Your task to perform on an android device: turn on wifi Image 0: 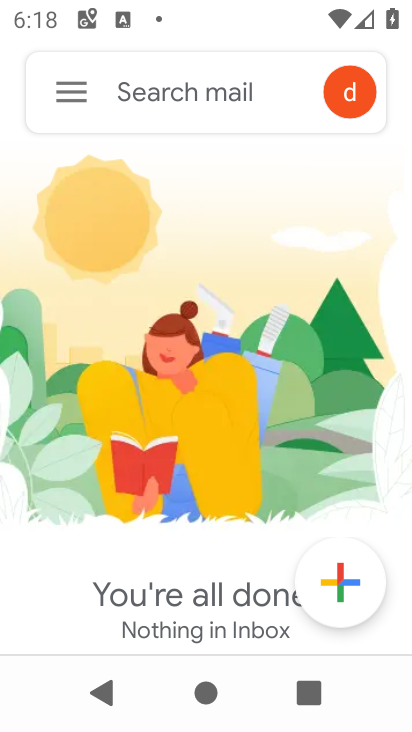
Step 0: press home button
Your task to perform on an android device: turn on wifi Image 1: 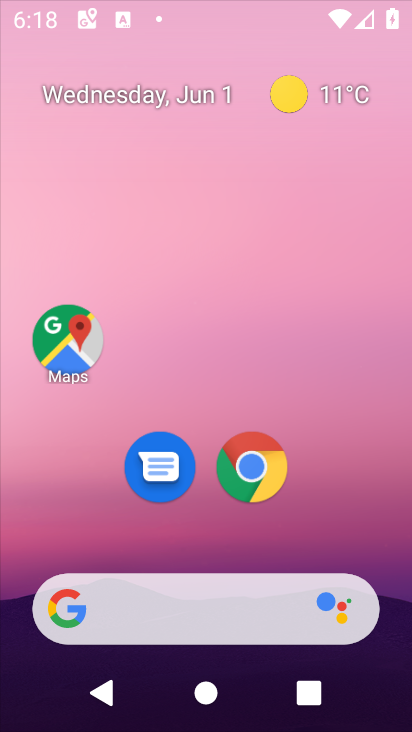
Step 1: drag from (273, 394) to (191, 4)
Your task to perform on an android device: turn on wifi Image 2: 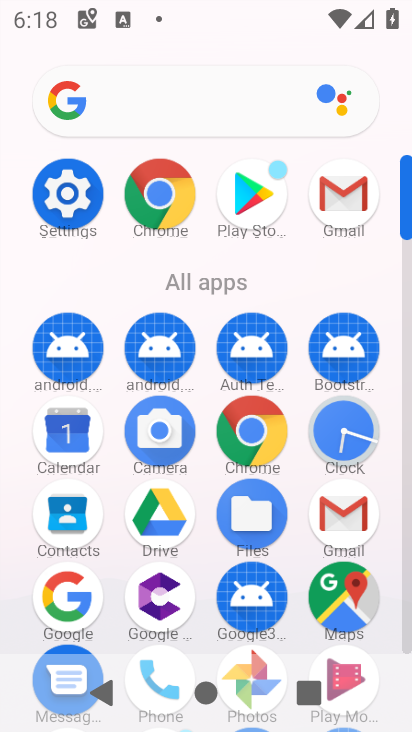
Step 2: click (75, 181)
Your task to perform on an android device: turn on wifi Image 3: 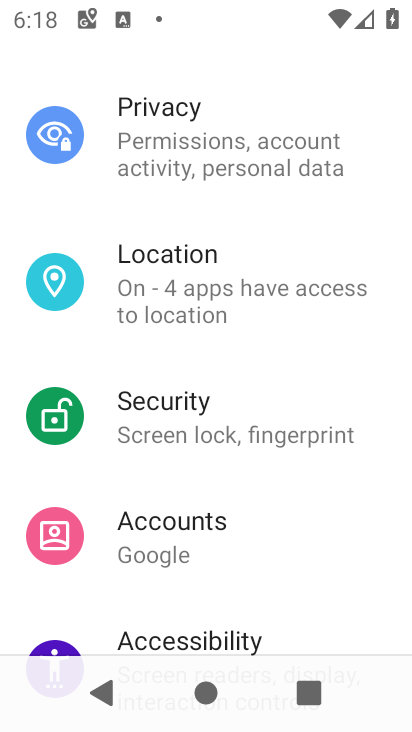
Step 3: drag from (248, 158) to (156, 687)
Your task to perform on an android device: turn on wifi Image 4: 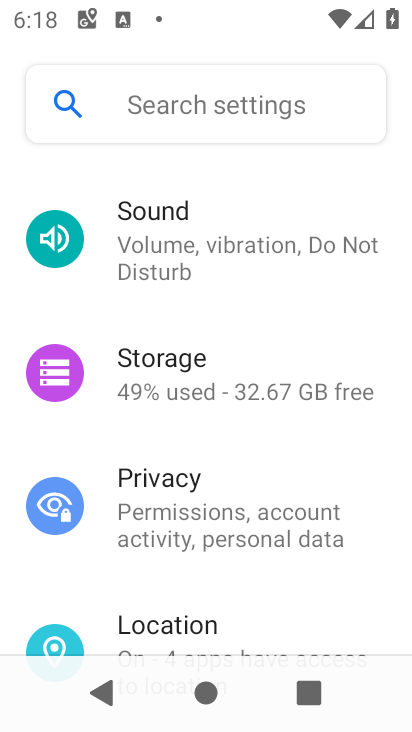
Step 4: drag from (247, 190) to (121, 675)
Your task to perform on an android device: turn on wifi Image 5: 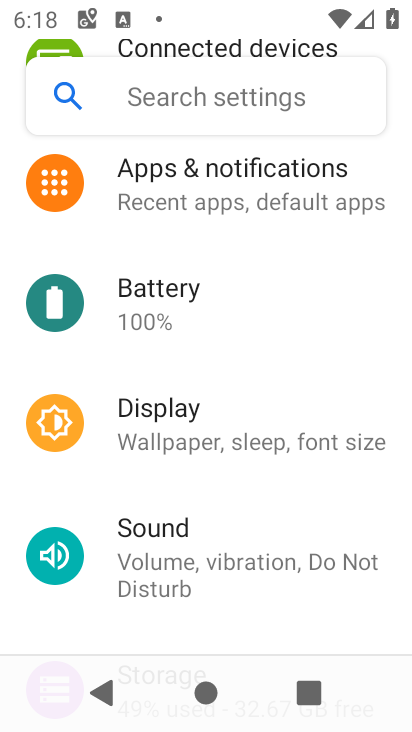
Step 5: drag from (272, 240) to (165, 688)
Your task to perform on an android device: turn on wifi Image 6: 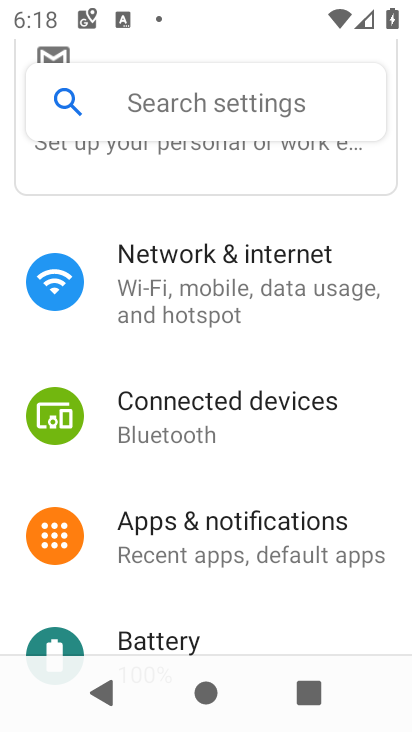
Step 6: click (223, 287)
Your task to perform on an android device: turn on wifi Image 7: 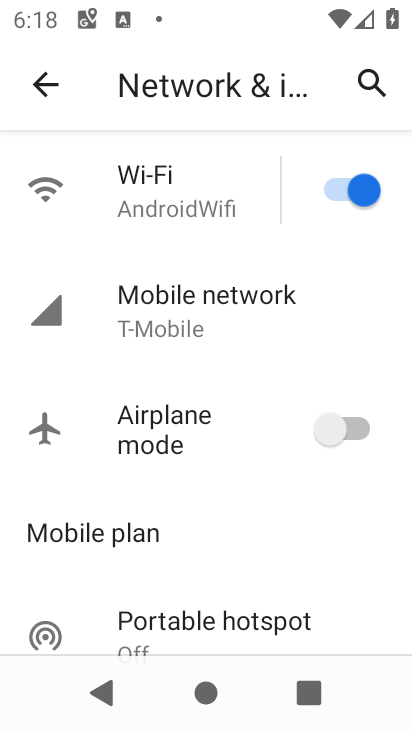
Step 7: task complete